Your task to perform on an android device: turn on translation in the chrome app Image 0: 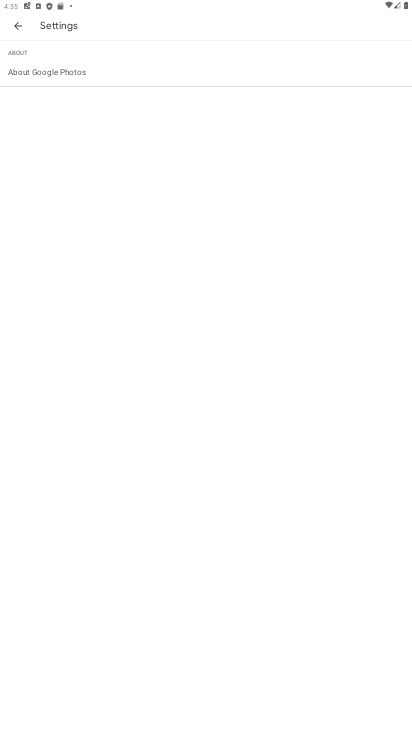
Step 0: press home button
Your task to perform on an android device: turn on translation in the chrome app Image 1: 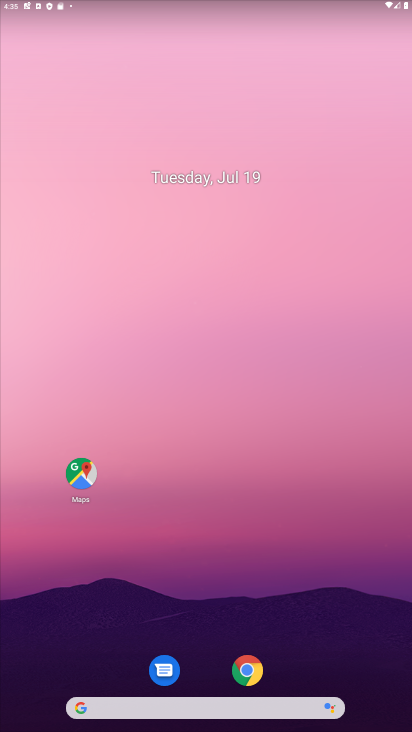
Step 1: drag from (224, 709) to (246, 8)
Your task to perform on an android device: turn on translation in the chrome app Image 2: 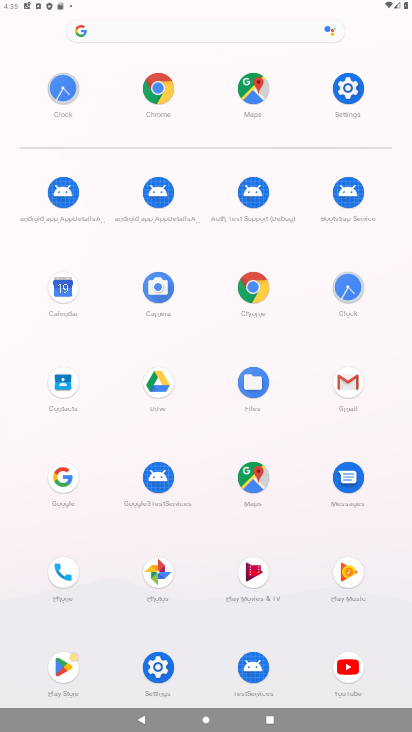
Step 2: click (252, 277)
Your task to perform on an android device: turn on translation in the chrome app Image 3: 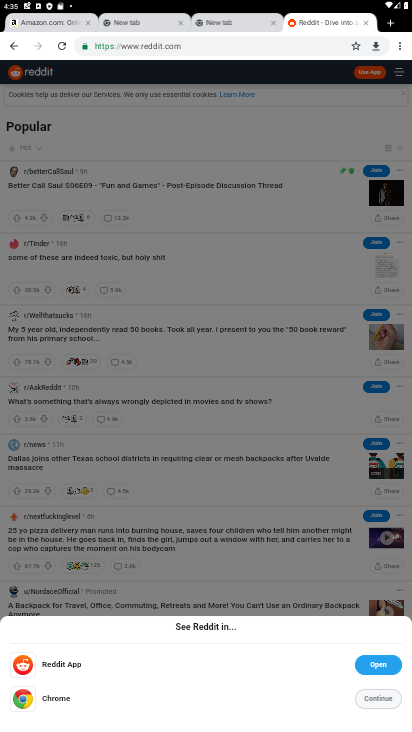
Step 3: click (404, 43)
Your task to perform on an android device: turn on translation in the chrome app Image 4: 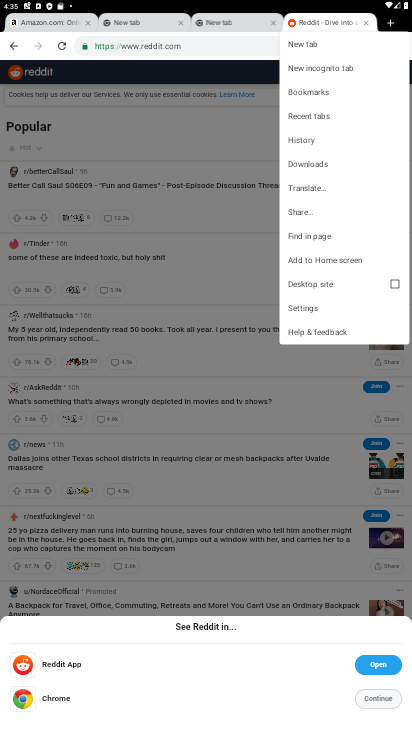
Step 4: click (312, 304)
Your task to perform on an android device: turn on translation in the chrome app Image 5: 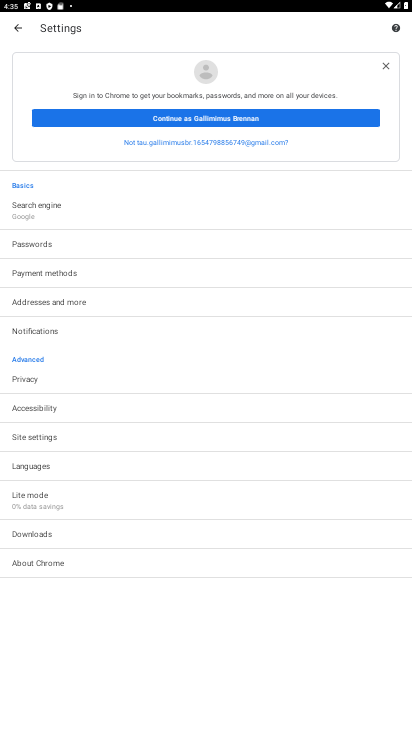
Step 5: click (46, 465)
Your task to perform on an android device: turn on translation in the chrome app Image 6: 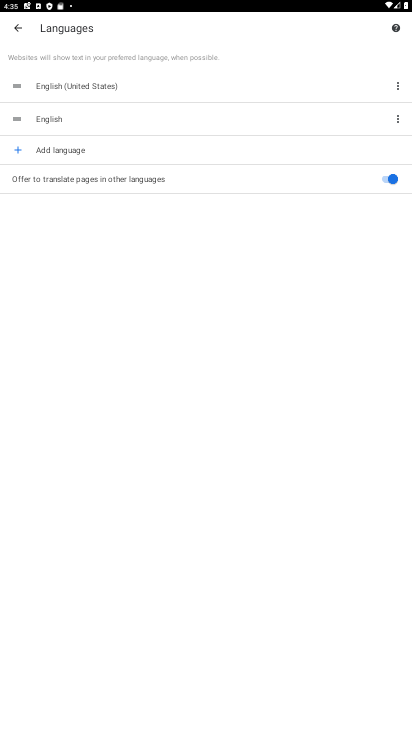
Step 6: task complete